Your task to perform on an android device: turn vacation reply on in the gmail app Image 0: 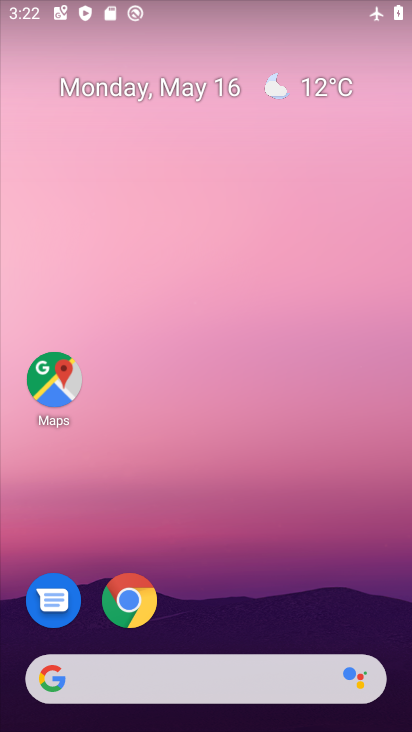
Step 0: drag from (221, 652) to (4, 326)
Your task to perform on an android device: turn vacation reply on in the gmail app Image 1: 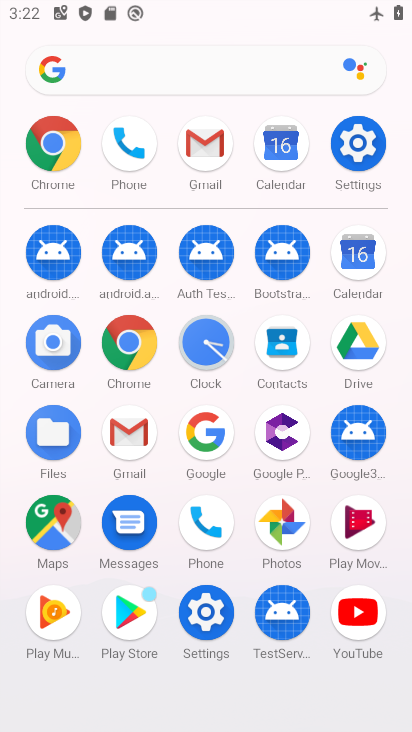
Step 1: click (119, 439)
Your task to perform on an android device: turn vacation reply on in the gmail app Image 2: 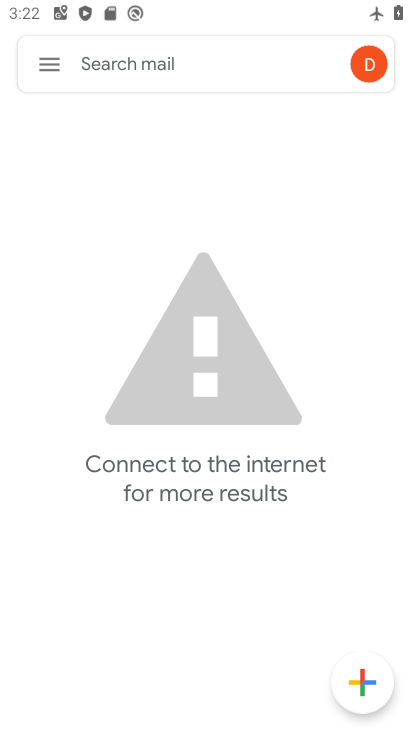
Step 2: click (50, 69)
Your task to perform on an android device: turn vacation reply on in the gmail app Image 3: 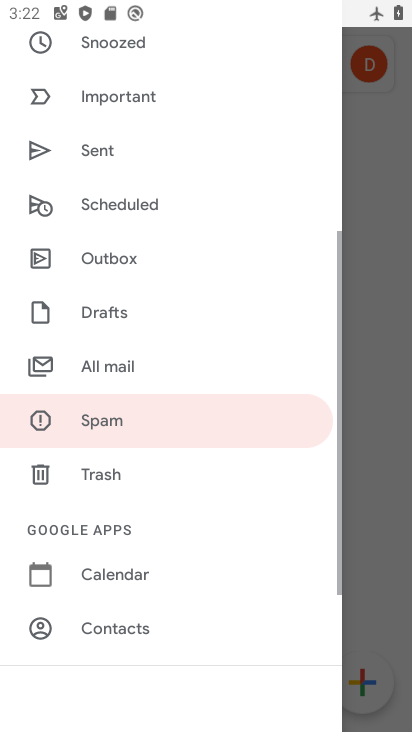
Step 3: drag from (86, 529) to (61, 3)
Your task to perform on an android device: turn vacation reply on in the gmail app Image 4: 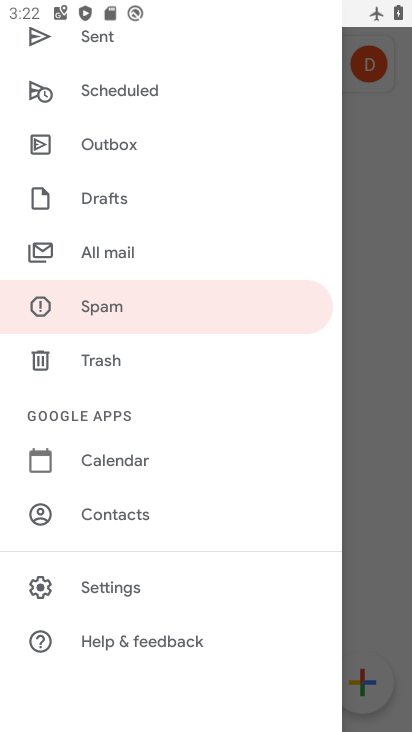
Step 4: click (108, 588)
Your task to perform on an android device: turn vacation reply on in the gmail app Image 5: 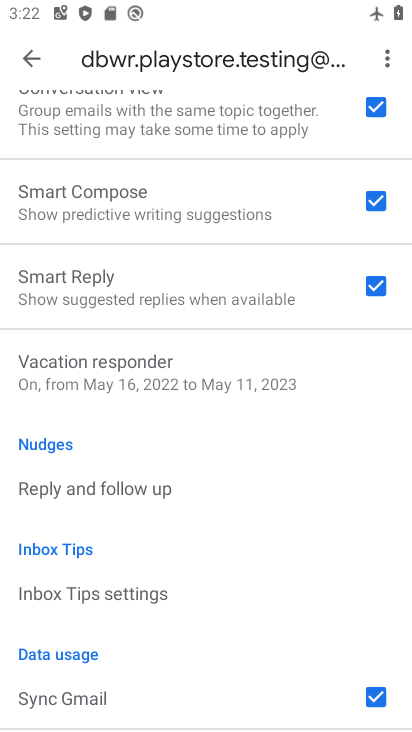
Step 5: click (121, 386)
Your task to perform on an android device: turn vacation reply on in the gmail app Image 6: 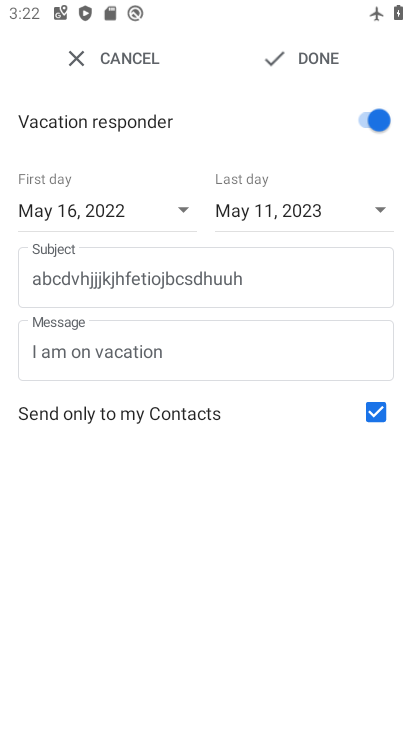
Step 6: task complete